Your task to perform on an android device: Turn on the flashlight Image 0: 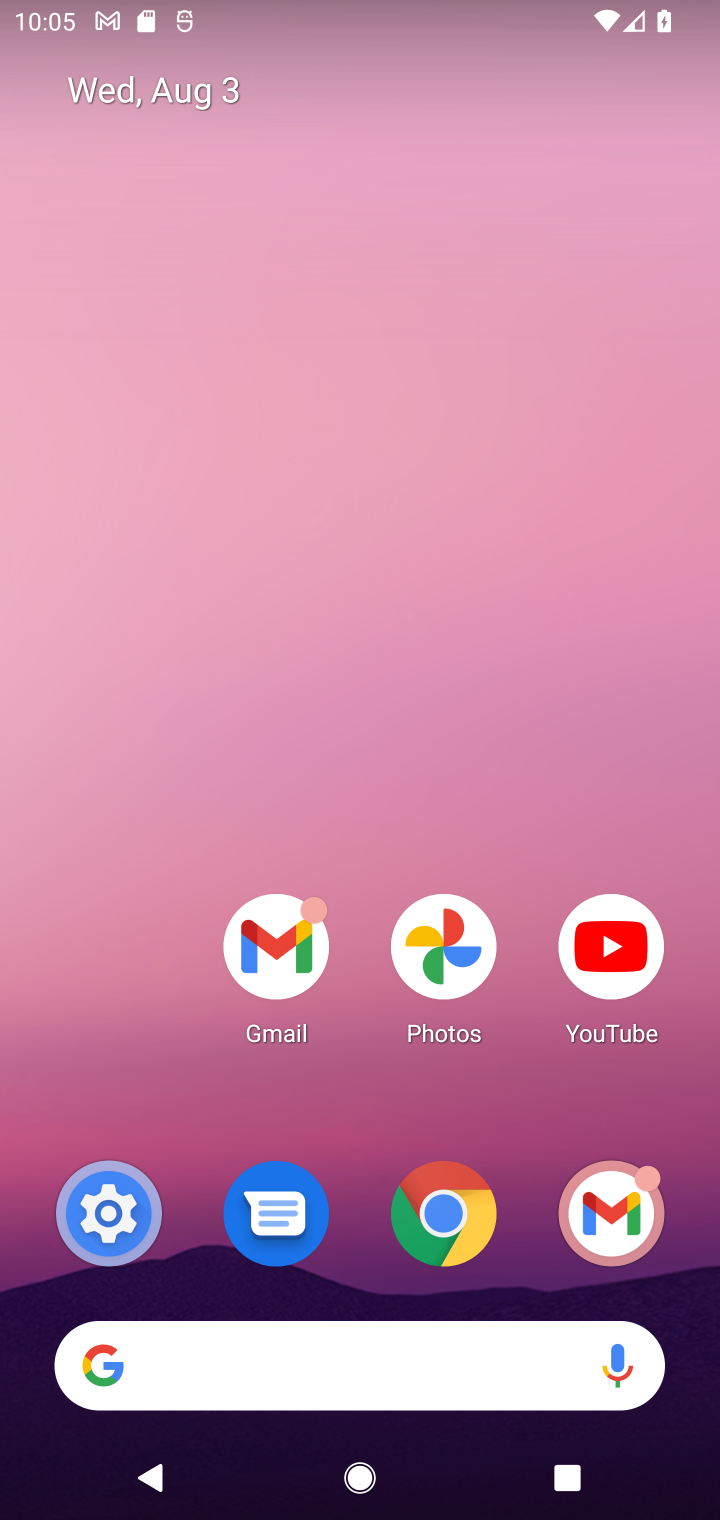
Step 0: drag from (428, 1262) to (326, 6)
Your task to perform on an android device: Turn on the flashlight Image 1: 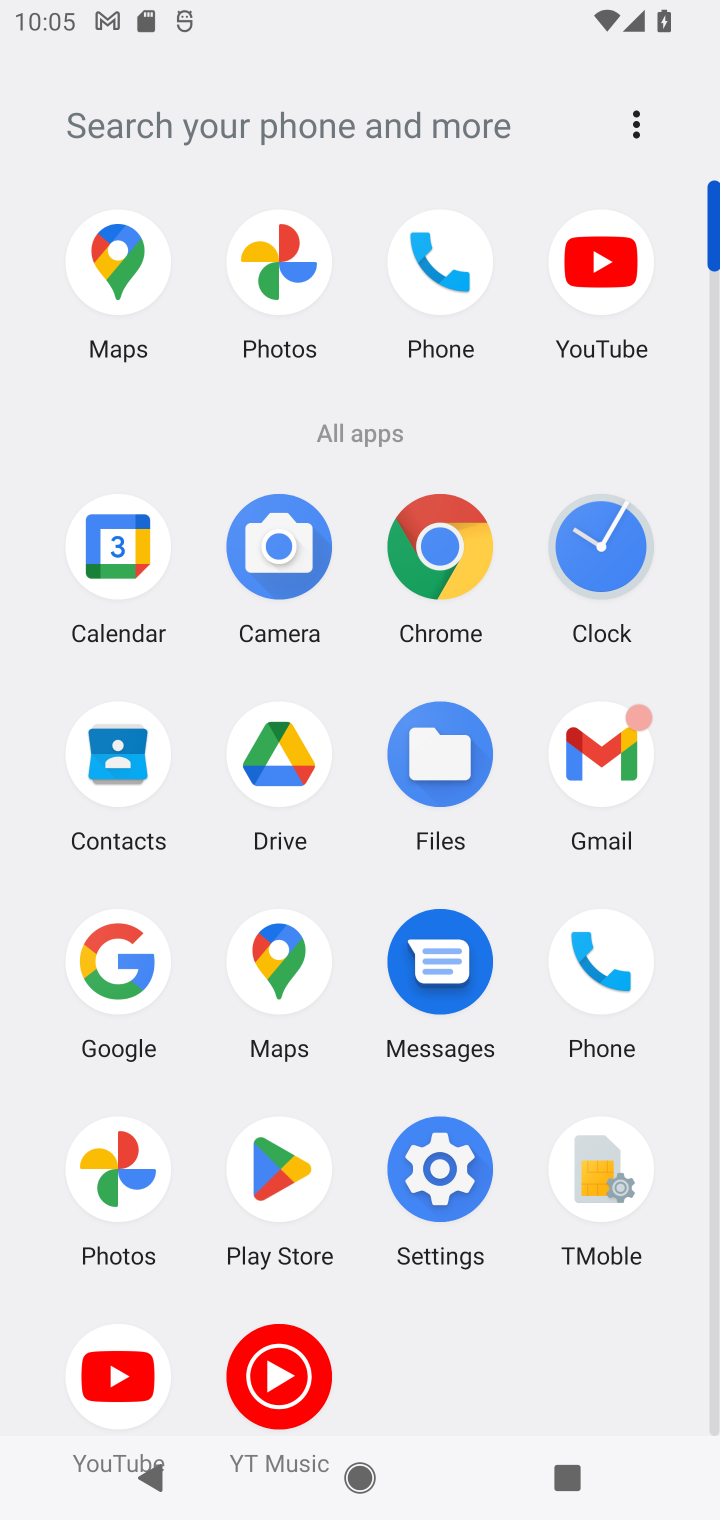
Step 1: click (402, 1158)
Your task to perform on an android device: Turn on the flashlight Image 2: 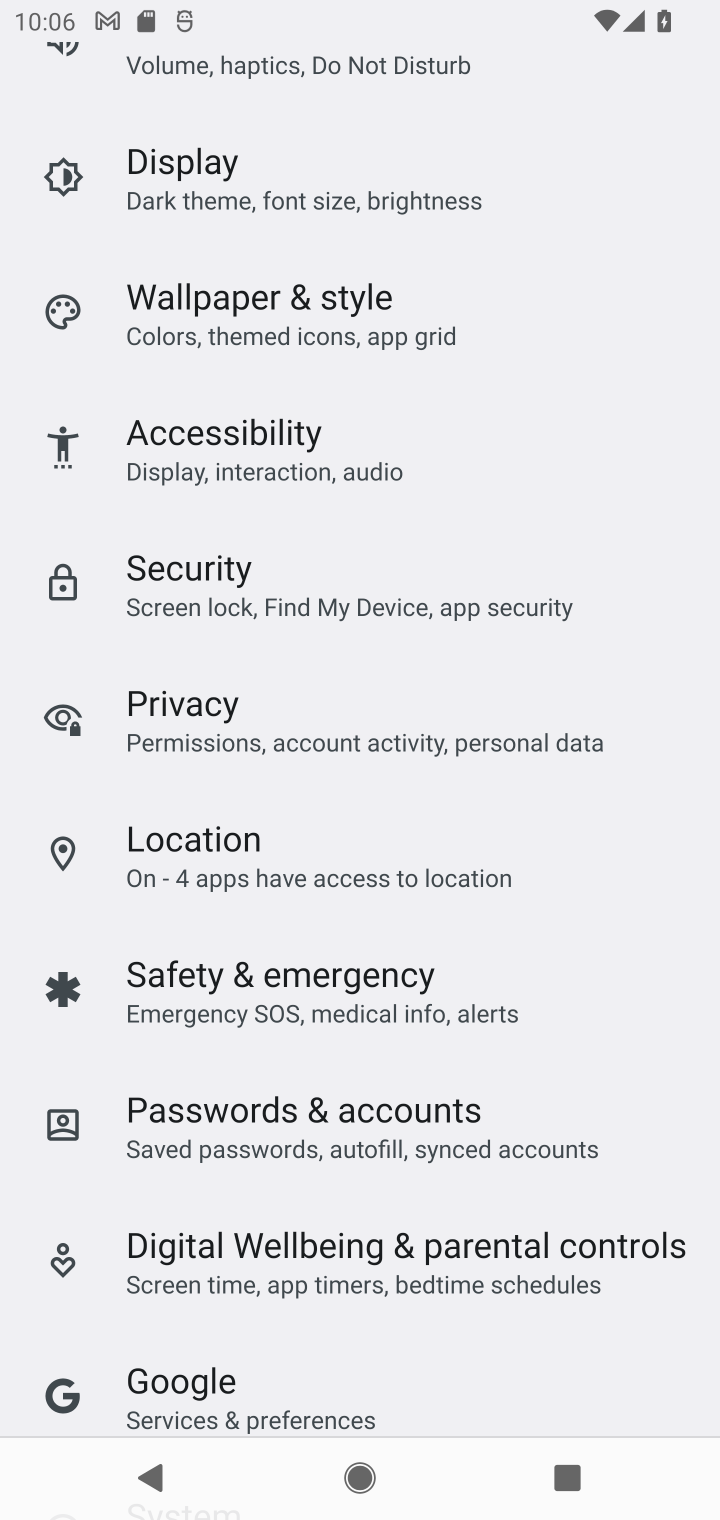
Step 2: task complete